Your task to perform on an android device: Show me productivity apps on the Play Store Image 0: 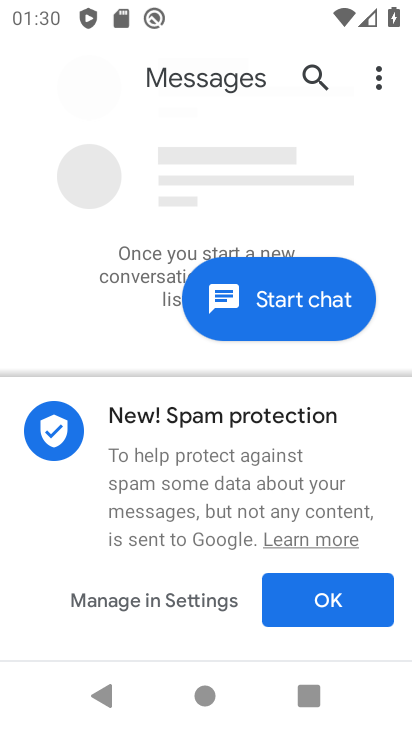
Step 0: press home button
Your task to perform on an android device: Show me productivity apps on the Play Store Image 1: 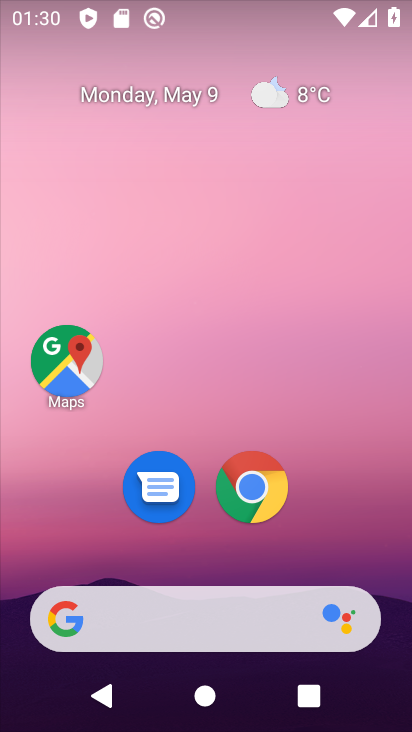
Step 1: drag from (330, 543) to (278, 89)
Your task to perform on an android device: Show me productivity apps on the Play Store Image 2: 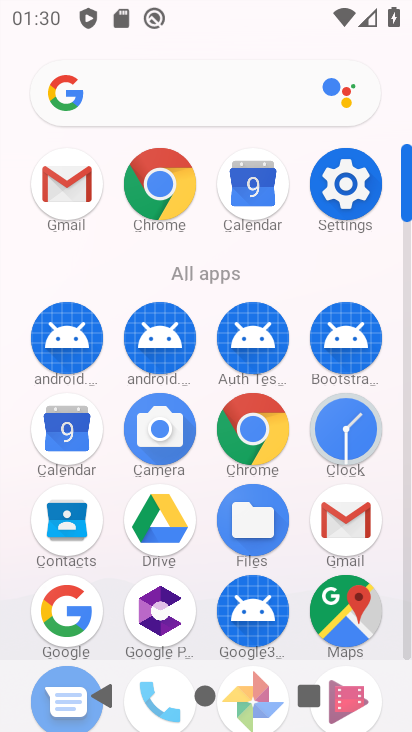
Step 2: drag from (181, 270) to (219, 3)
Your task to perform on an android device: Show me productivity apps on the Play Store Image 3: 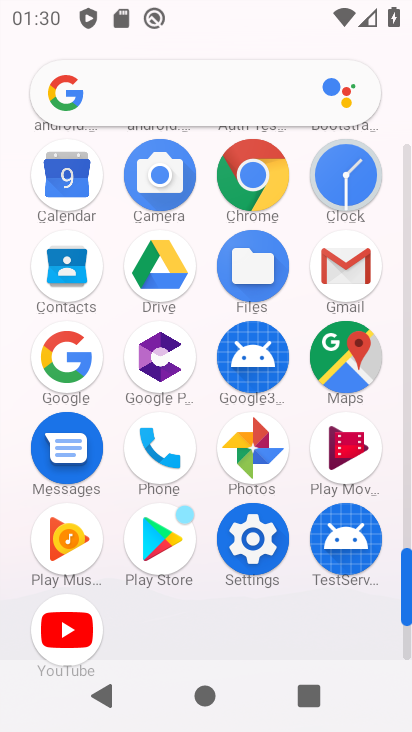
Step 3: click (164, 549)
Your task to perform on an android device: Show me productivity apps on the Play Store Image 4: 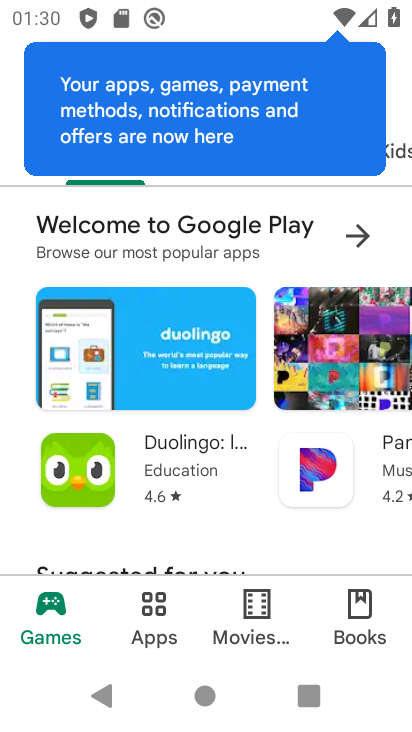
Step 4: drag from (358, 196) to (344, 154)
Your task to perform on an android device: Show me productivity apps on the Play Store Image 5: 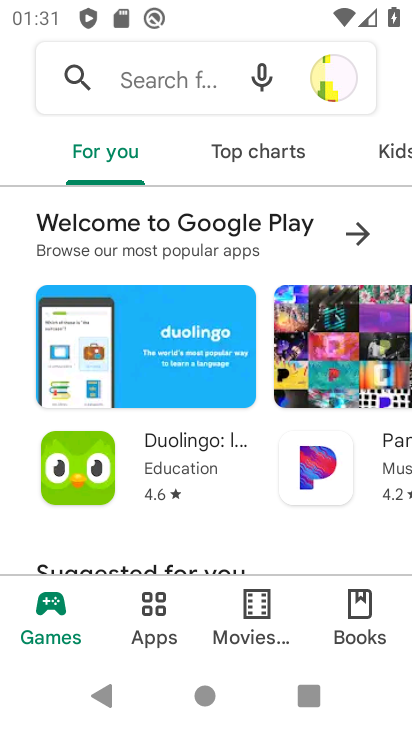
Step 5: click (137, 588)
Your task to perform on an android device: Show me productivity apps on the Play Store Image 6: 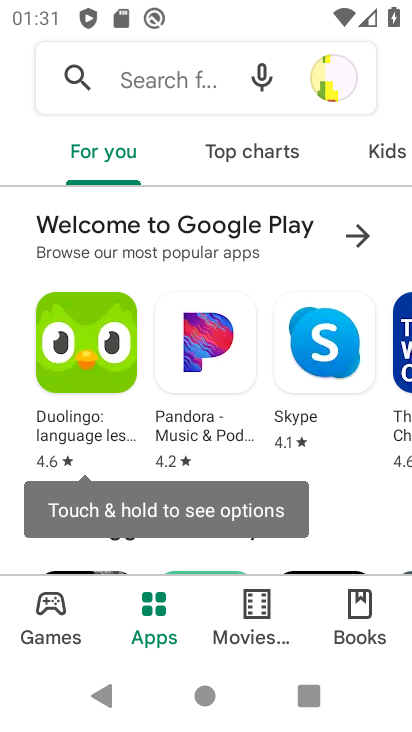
Step 6: drag from (329, 150) to (125, 147)
Your task to perform on an android device: Show me productivity apps on the Play Store Image 7: 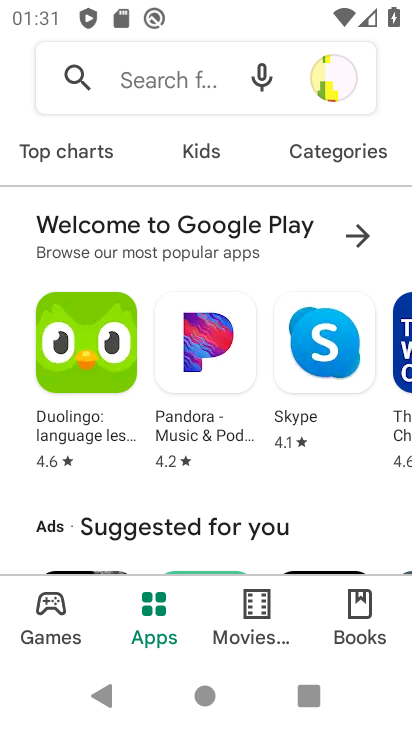
Step 7: click (356, 155)
Your task to perform on an android device: Show me productivity apps on the Play Store Image 8: 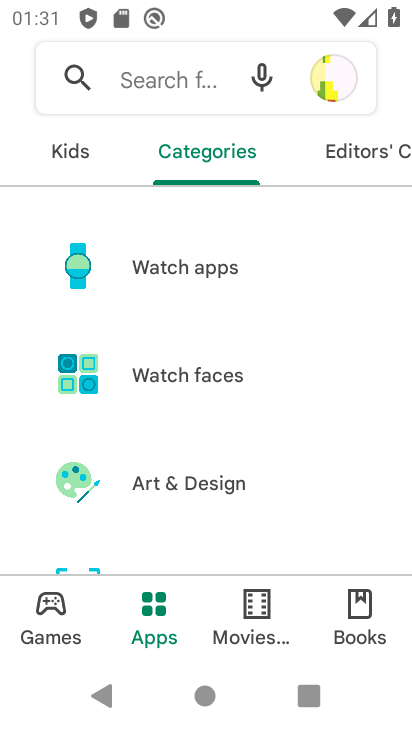
Step 8: drag from (274, 485) to (227, 233)
Your task to perform on an android device: Show me productivity apps on the Play Store Image 9: 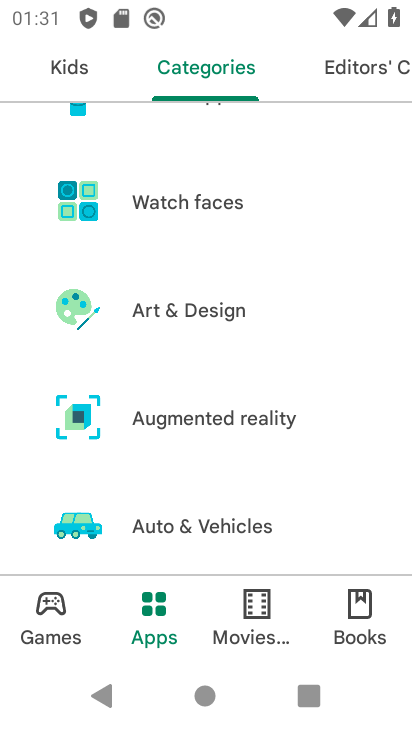
Step 9: drag from (247, 511) to (236, 174)
Your task to perform on an android device: Show me productivity apps on the Play Store Image 10: 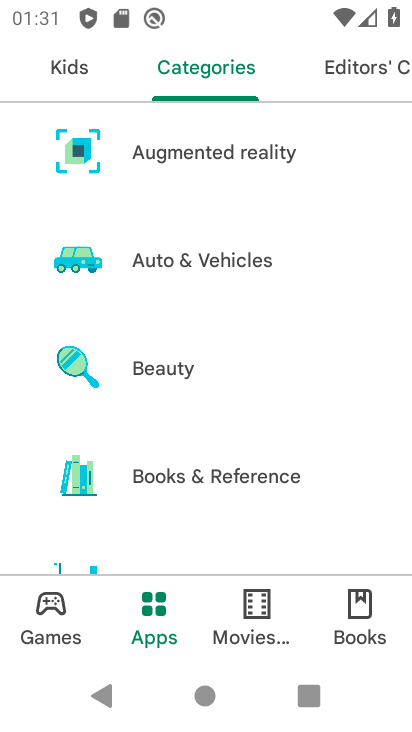
Step 10: drag from (261, 513) to (225, 0)
Your task to perform on an android device: Show me productivity apps on the Play Store Image 11: 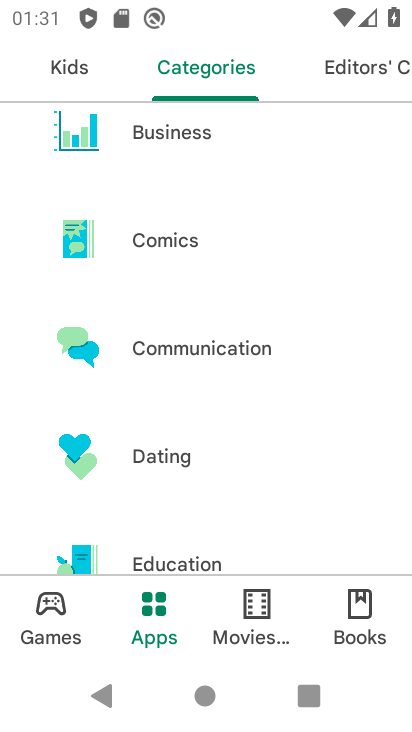
Step 11: drag from (261, 553) to (205, 2)
Your task to perform on an android device: Show me productivity apps on the Play Store Image 12: 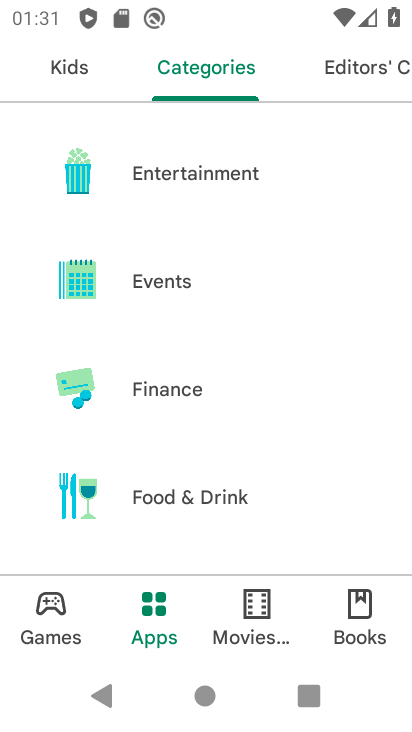
Step 12: drag from (213, 575) to (185, 93)
Your task to perform on an android device: Show me productivity apps on the Play Store Image 13: 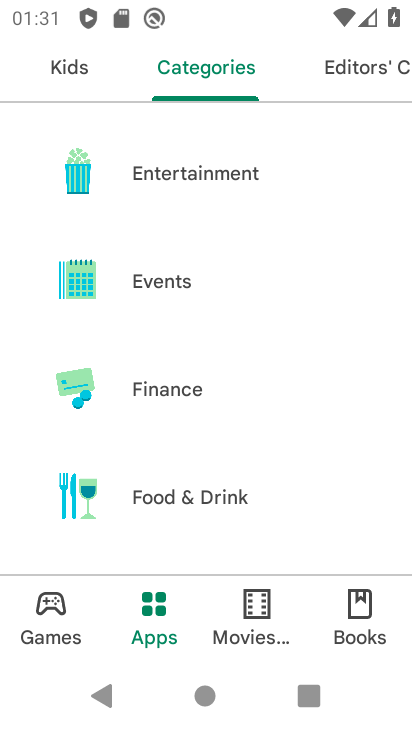
Step 13: drag from (194, 522) to (184, 122)
Your task to perform on an android device: Show me productivity apps on the Play Store Image 14: 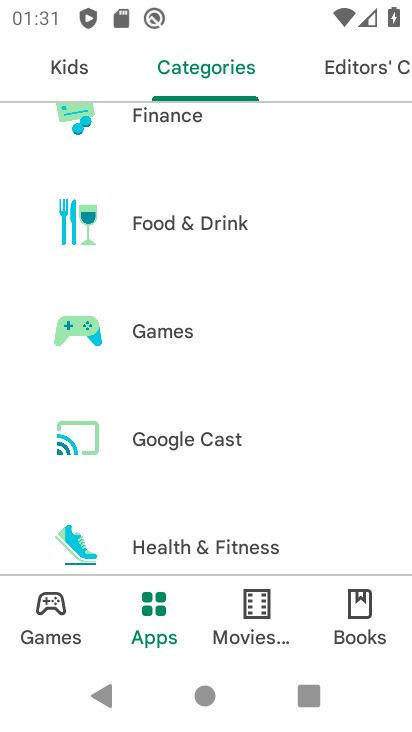
Step 14: drag from (217, 519) to (226, 66)
Your task to perform on an android device: Show me productivity apps on the Play Store Image 15: 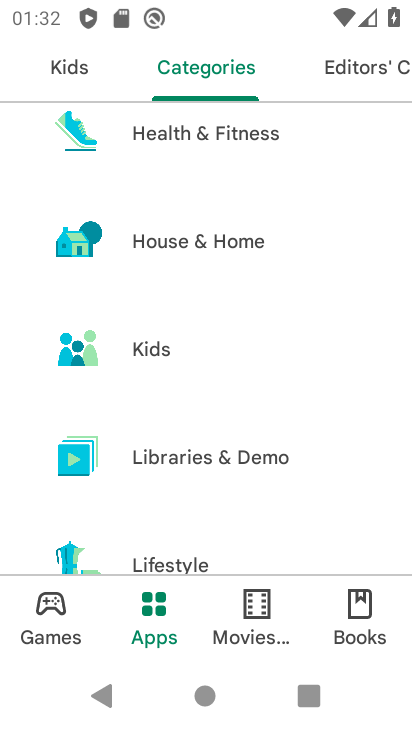
Step 15: drag from (264, 516) to (282, 3)
Your task to perform on an android device: Show me productivity apps on the Play Store Image 16: 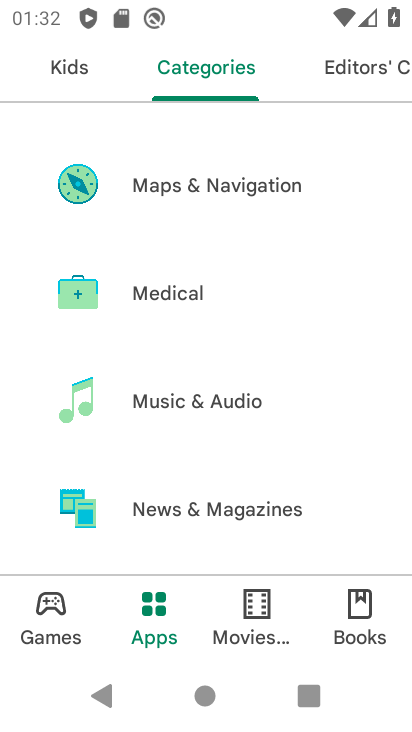
Step 16: drag from (261, 526) to (253, 97)
Your task to perform on an android device: Show me productivity apps on the Play Store Image 17: 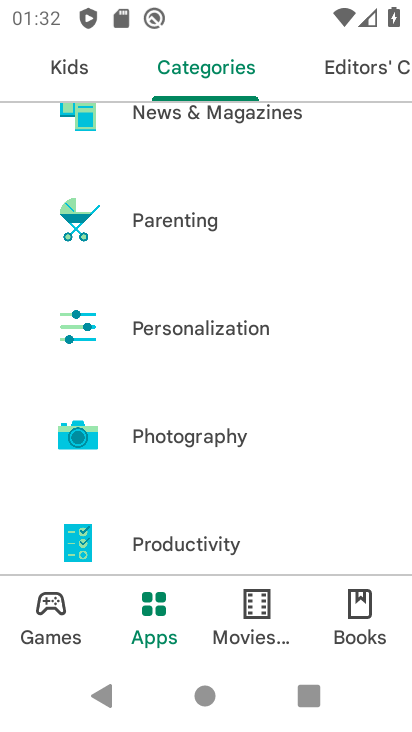
Step 17: click (185, 540)
Your task to perform on an android device: Show me productivity apps on the Play Store Image 18: 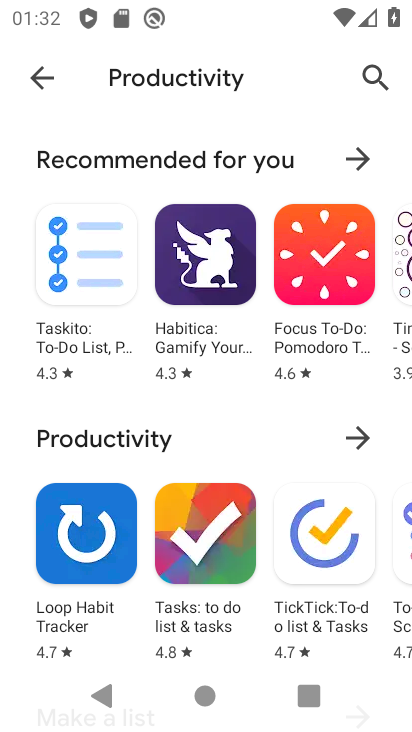
Step 18: task complete